Your task to perform on an android device: Is it going to rain this weekend? Image 0: 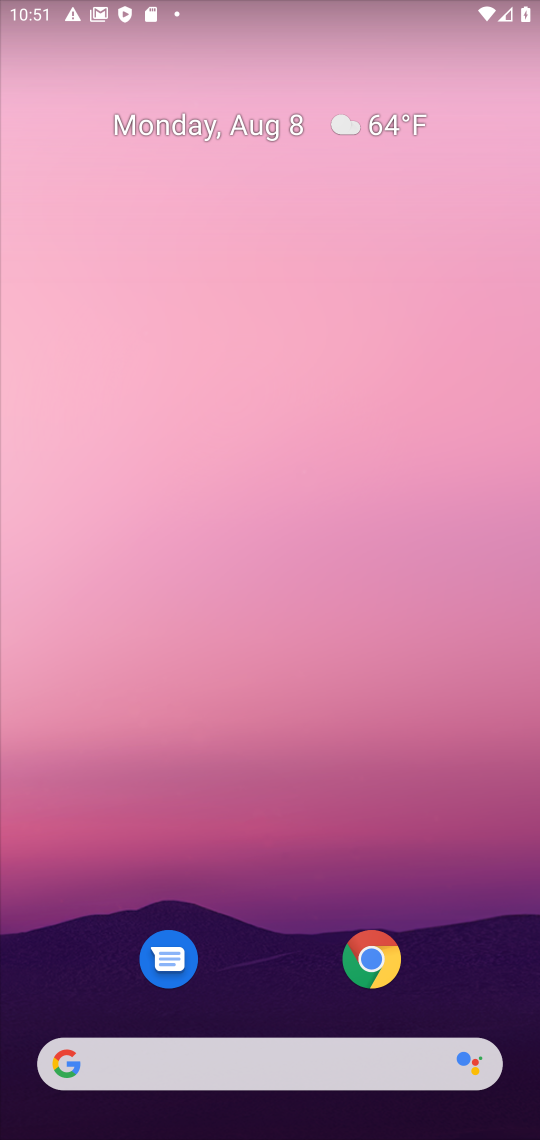
Step 0: click (392, 967)
Your task to perform on an android device: Is it going to rain this weekend? Image 1: 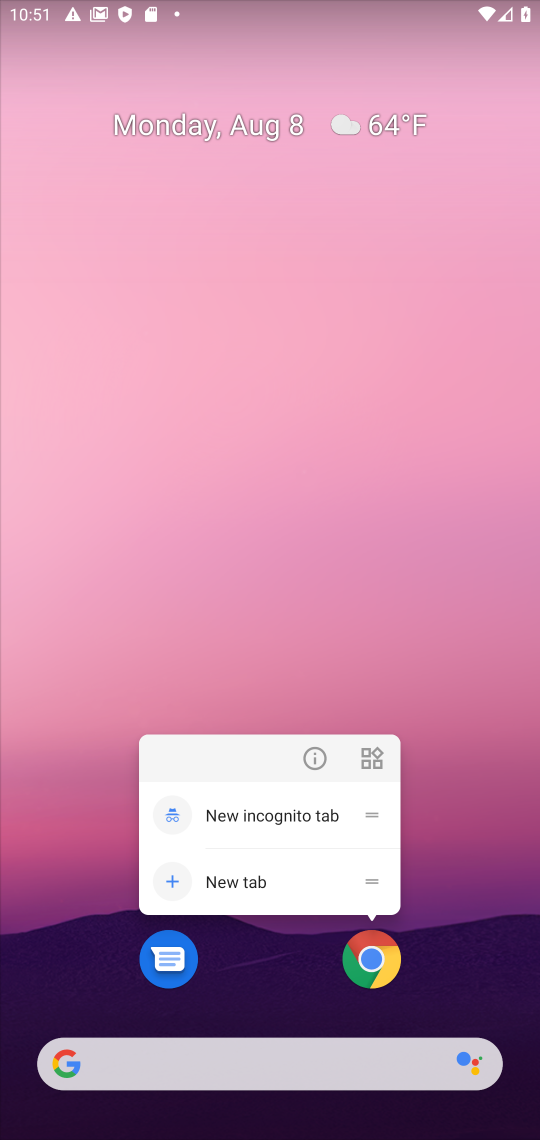
Step 1: click (392, 967)
Your task to perform on an android device: Is it going to rain this weekend? Image 2: 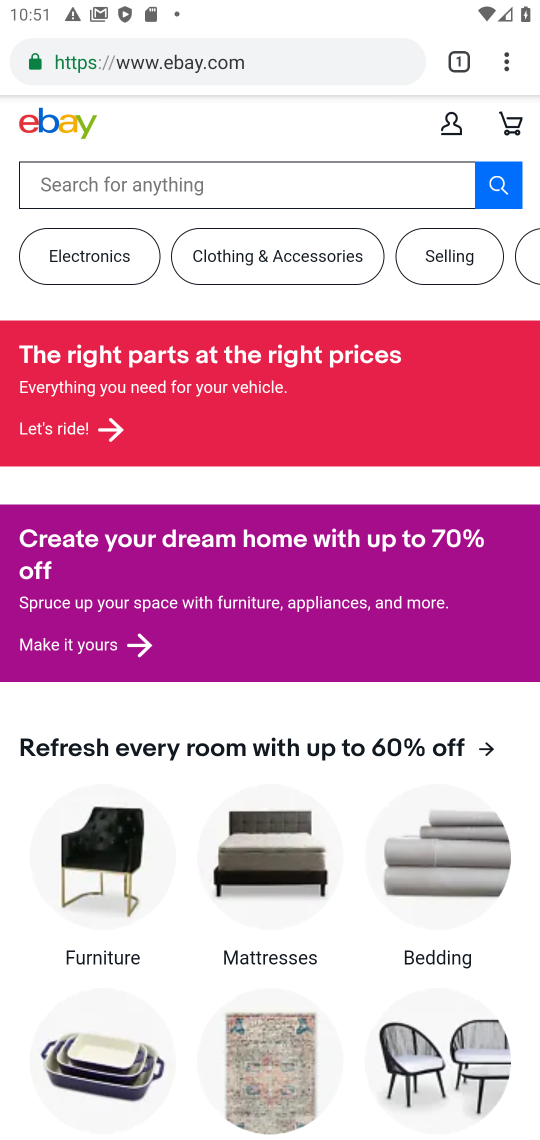
Step 2: click (192, 38)
Your task to perform on an android device: Is it going to rain this weekend? Image 3: 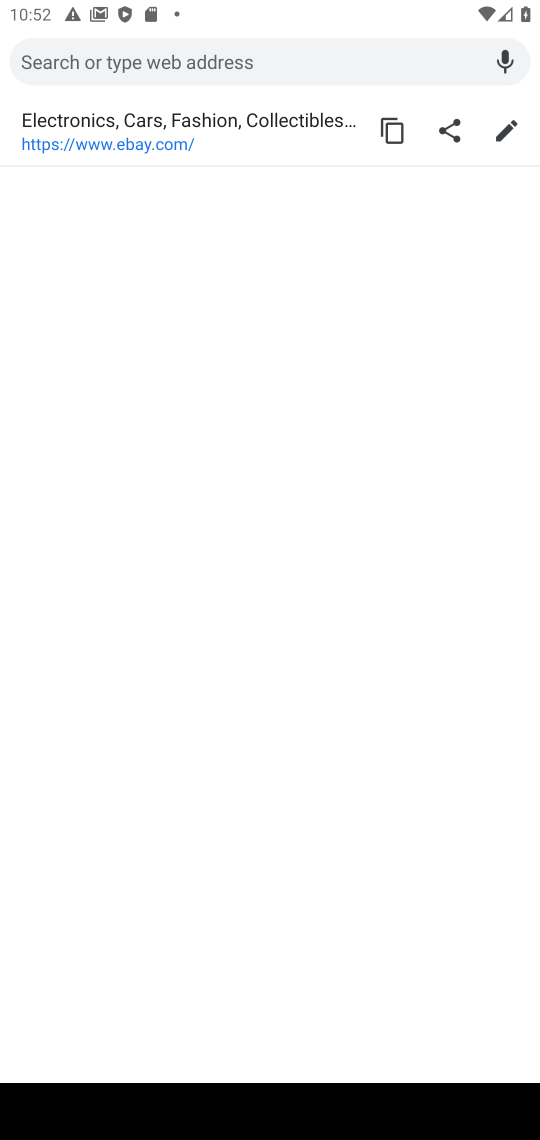
Step 3: click (151, 72)
Your task to perform on an android device: Is it going to rain this weekend? Image 4: 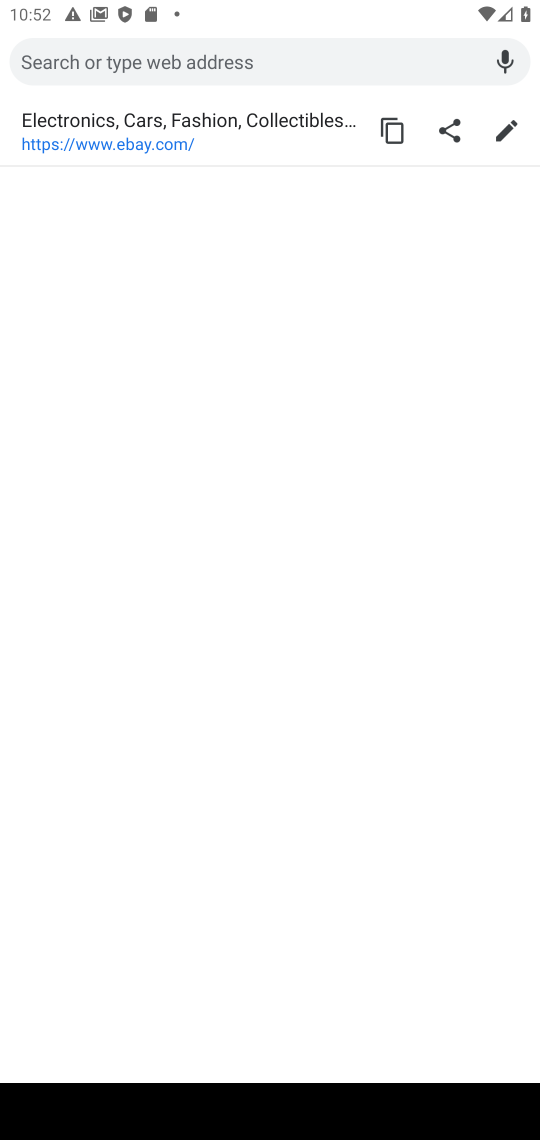
Step 4: type "Is it going to rain this weekend?"
Your task to perform on an android device: Is it going to rain this weekend? Image 5: 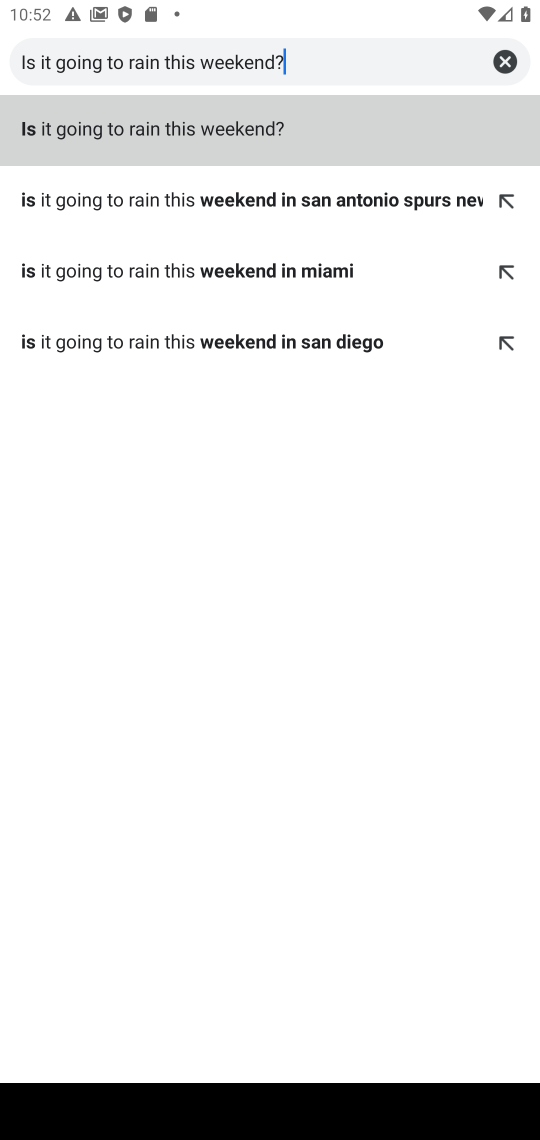
Step 5: click (205, 133)
Your task to perform on an android device: Is it going to rain this weekend? Image 6: 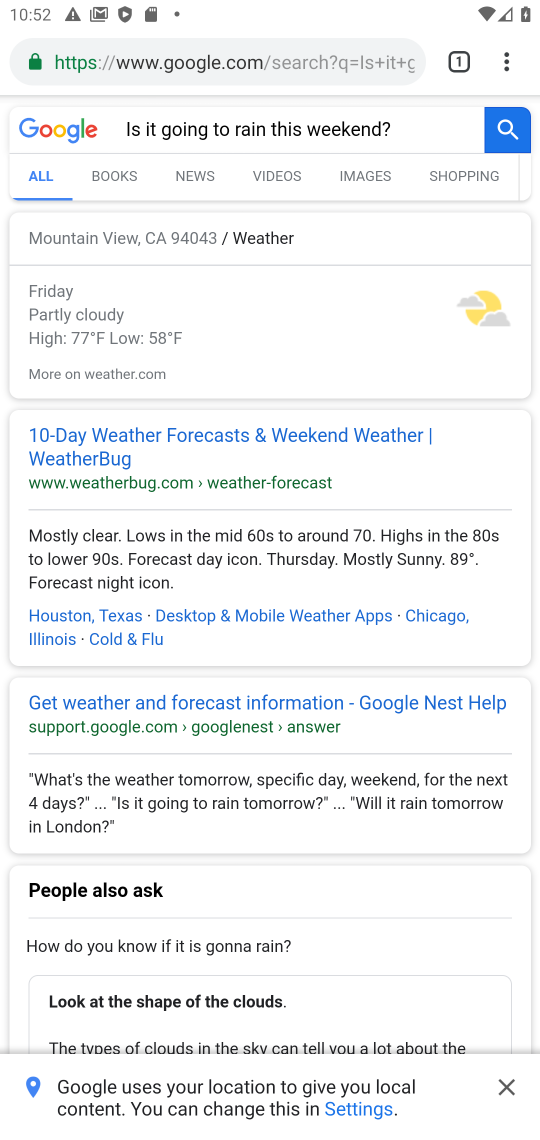
Step 6: click (155, 444)
Your task to perform on an android device: Is it going to rain this weekend? Image 7: 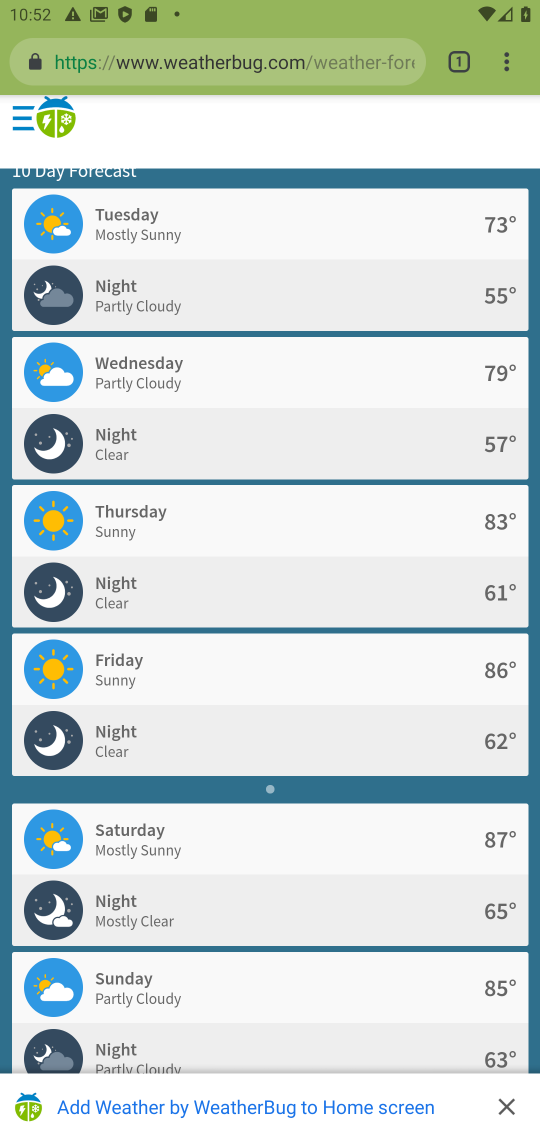
Step 7: task complete